Your task to perform on an android device: Go to accessibility settings Image 0: 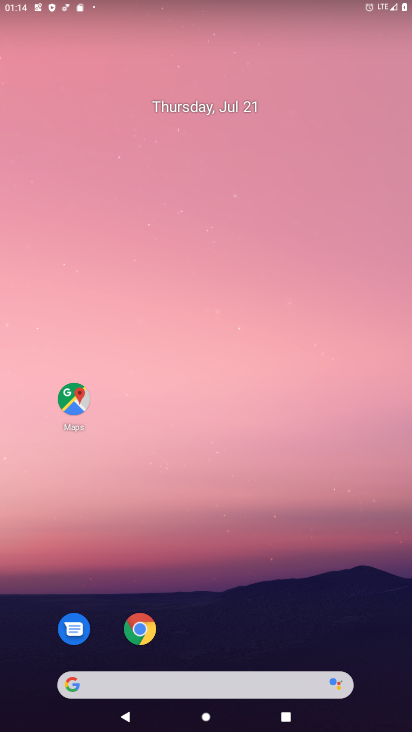
Step 0: drag from (273, 357) to (264, 150)
Your task to perform on an android device: Go to accessibility settings Image 1: 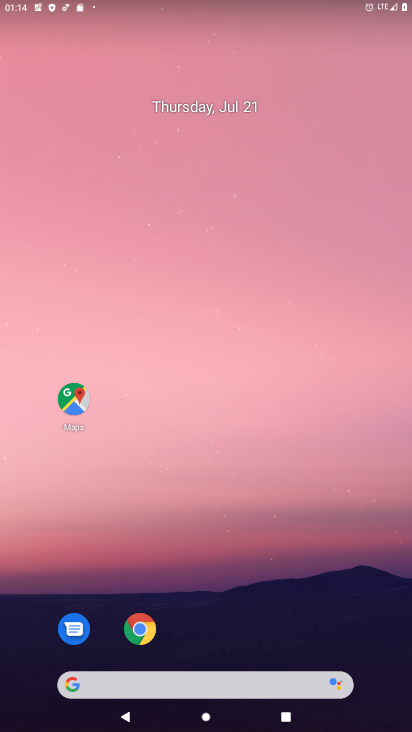
Step 1: drag from (259, 599) to (247, 56)
Your task to perform on an android device: Go to accessibility settings Image 2: 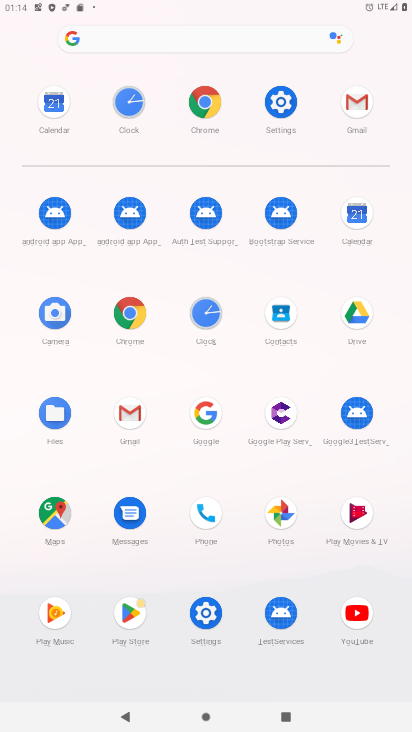
Step 2: click (284, 94)
Your task to perform on an android device: Go to accessibility settings Image 3: 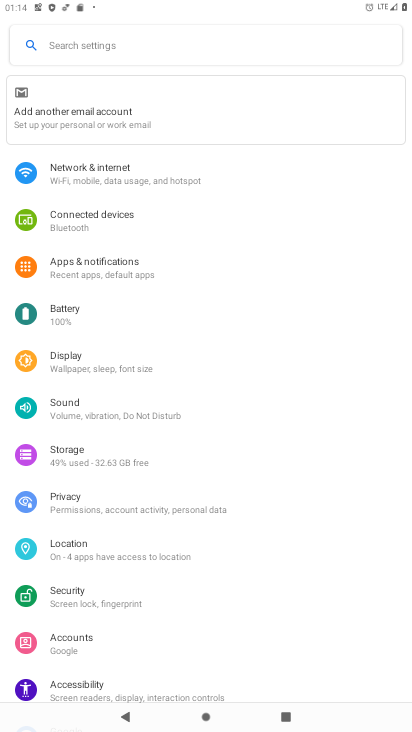
Step 3: drag from (169, 668) to (178, 185)
Your task to perform on an android device: Go to accessibility settings Image 4: 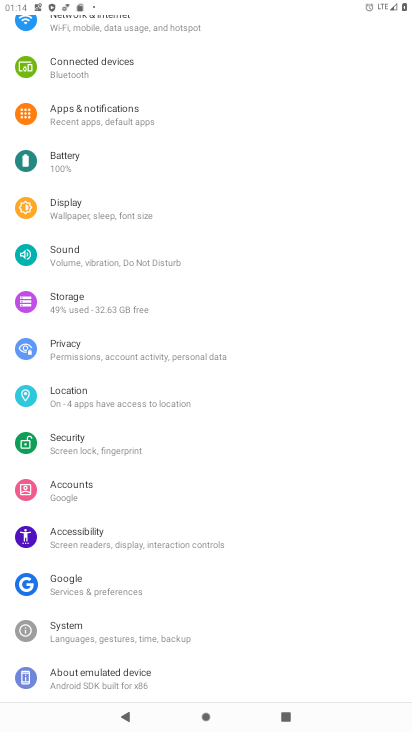
Step 4: click (137, 538)
Your task to perform on an android device: Go to accessibility settings Image 5: 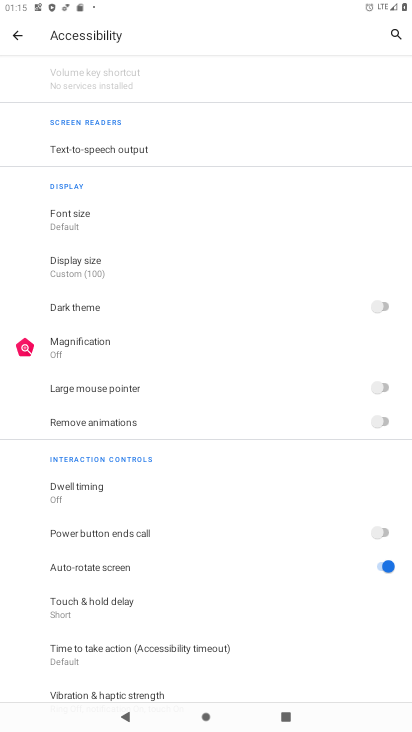
Step 5: task complete